Your task to perform on an android device: Find coffee shops on Maps Image 0: 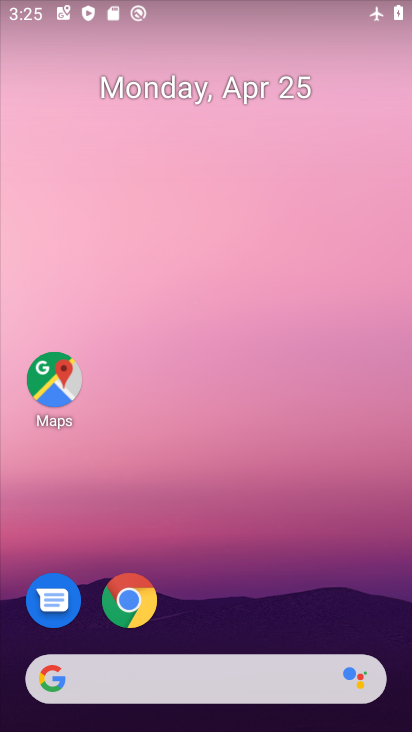
Step 0: drag from (316, 330) to (338, 84)
Your task to perform on an android device: Find coffee shops on Maps Image 1: 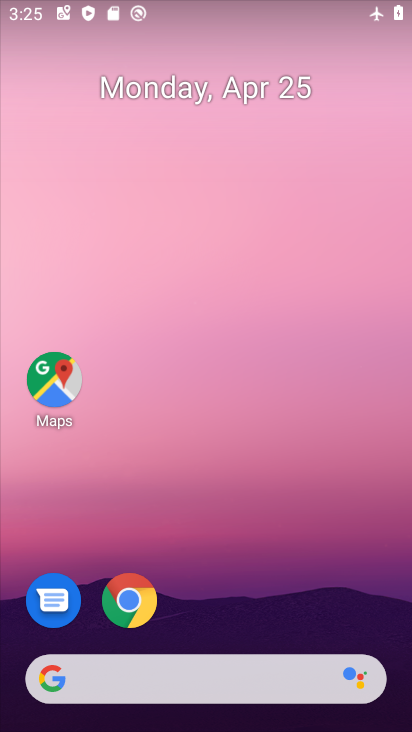
Step 1: drag from (302, 502) to (283, 43)
Your task to perform on an android device: Find coffee shops on Maps Image 2: 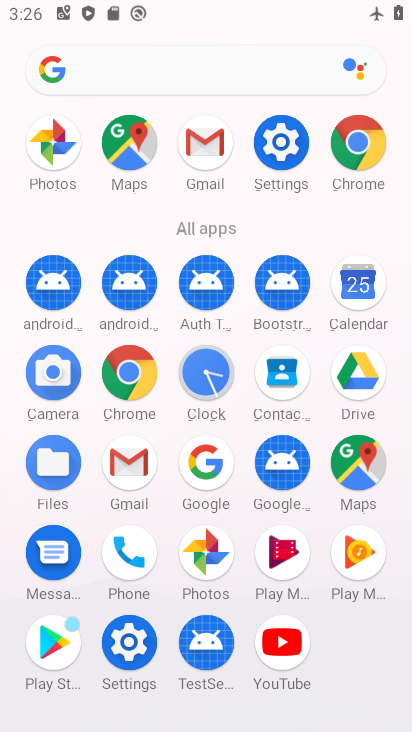
Step 2: click (116, 142)
Your task to perform on an android device: Find coffee shops on Maps Image 3: 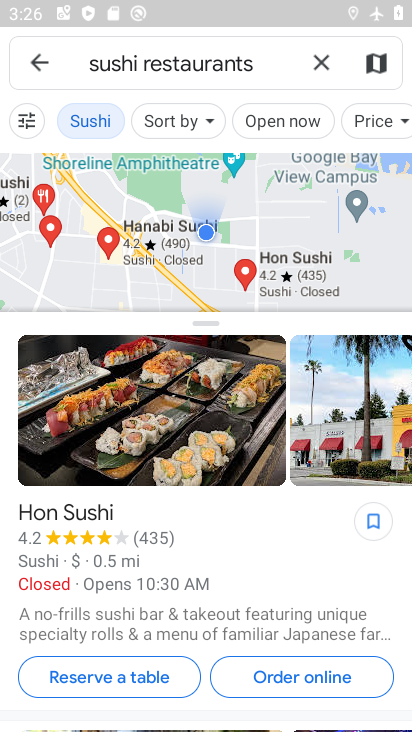
Step 3: click (322, 65)
Your task to perform on an android device: Find coffee shops on Maps Image 4: 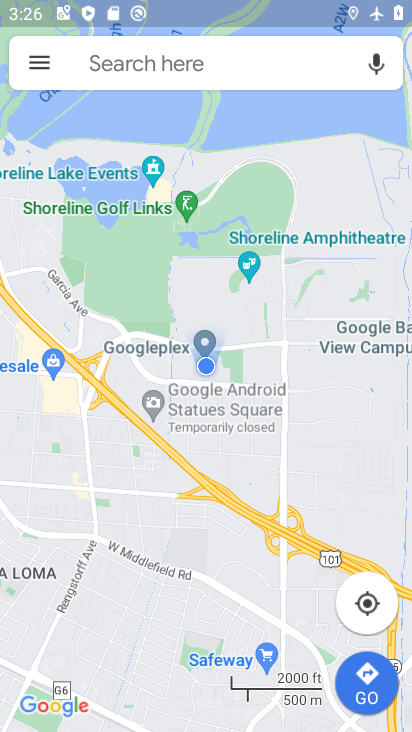
Step 4: click (199, 37)
Your task to perform on an android device: Find coffee shops on Maps Image 5: 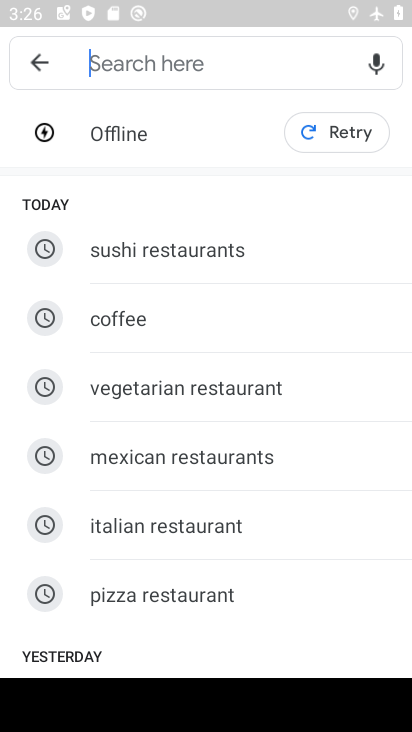
Step 5: click (200, 302)
Your task to perform on an android device: Find coffee shops on Maps Image 6: 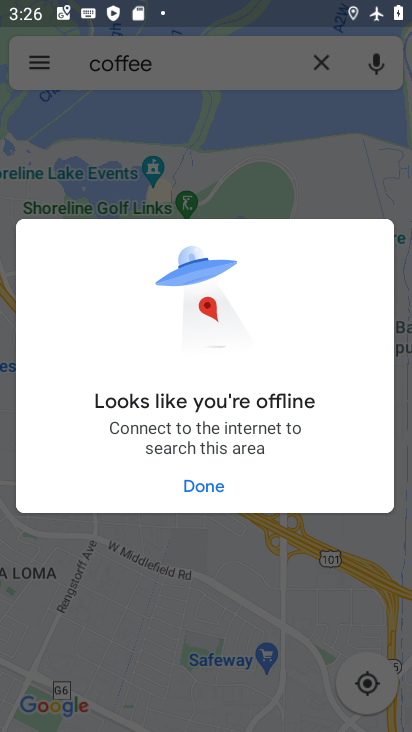
Step 6: task complete